Your task to perform on an android device: move a message to another label in the gmail app Image 0: 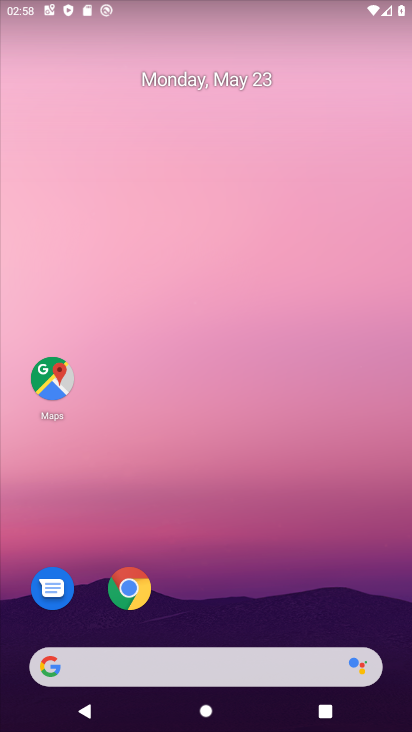
Step 0: drag from (224, 726) to (224, 134)
Your task to perform on an android device: move a message to another label in the gmail app Image 1: 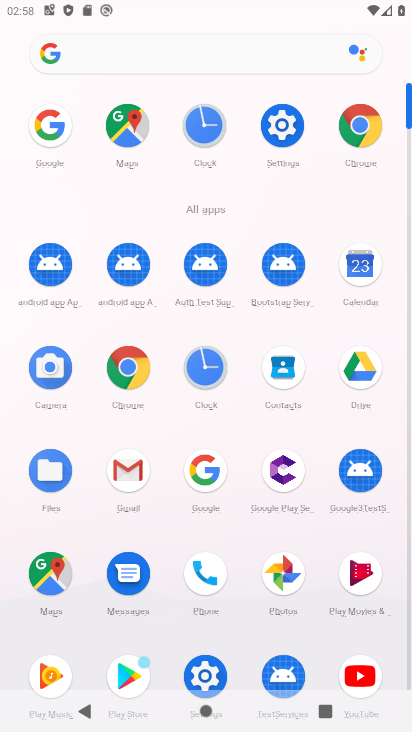
Step 1: click (126, 471)
Your task to perform on an android device: move a message to another label in the gmail app Image 2: 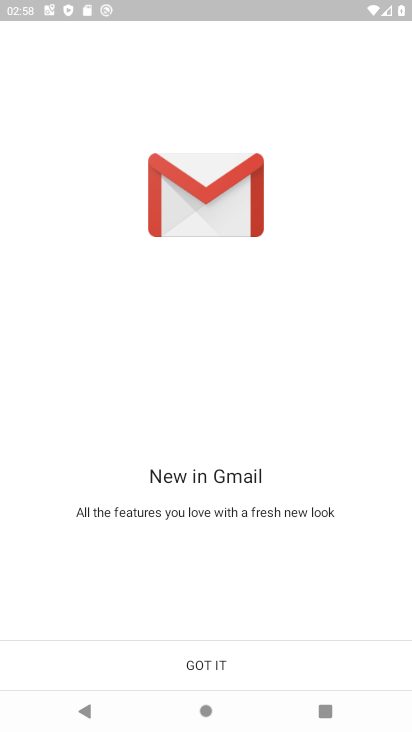
Step 2: click (188, 661)
Your task to perform on an android device: move a message to another label in the gmail app Image 3: 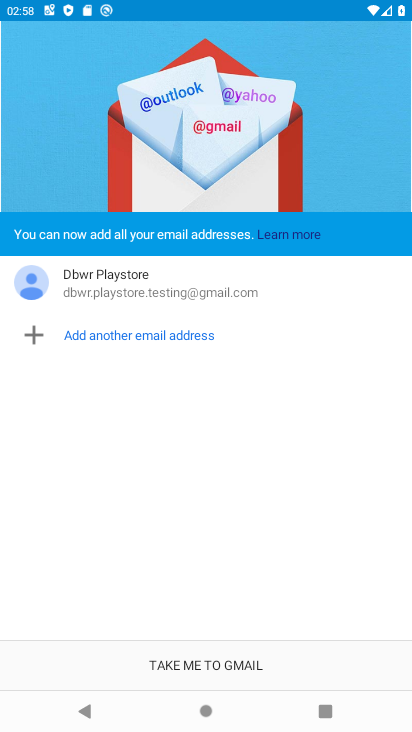
Step 3: click (188, 661)
Your task to perform on an android device: move a message to another label in the gmail app Image 4: 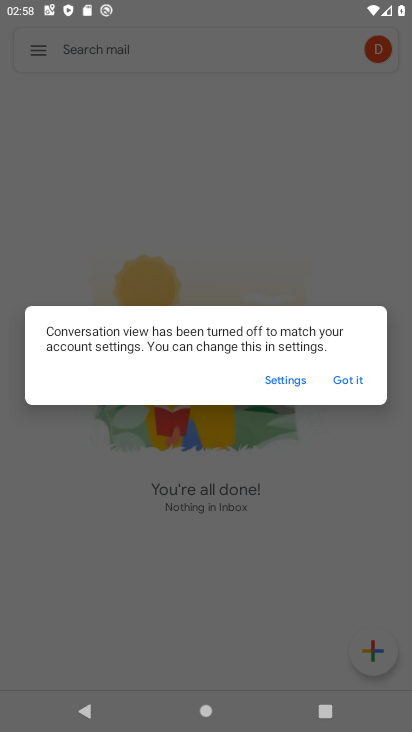
Step 4: click (350, 371)
Your task to perform on an android device: move a message to another label in the gmail app Image 5: 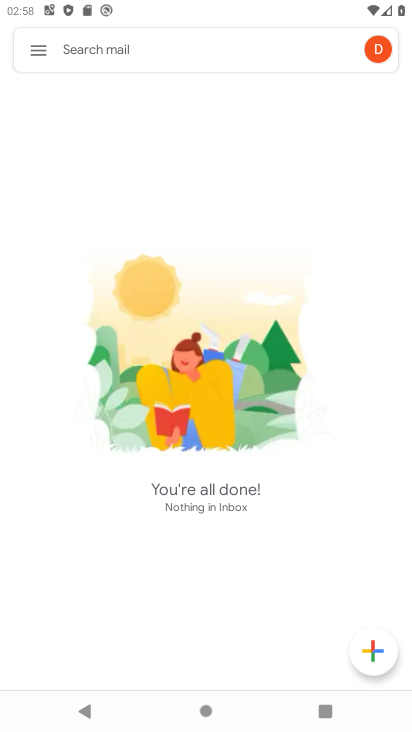
Step 5: task complete